Your task to perform on an android device: Turn on the flashlight Image 0: 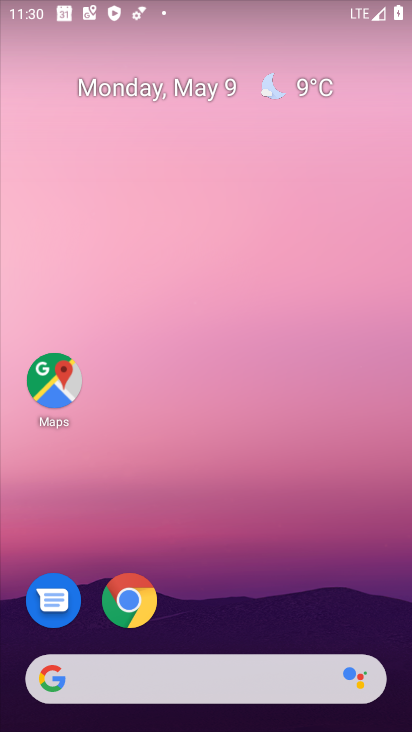
Step 0: drag from (342, 533) to (333, 171)
Your task to perform on an android device: Turn on the flashlight Image 1: 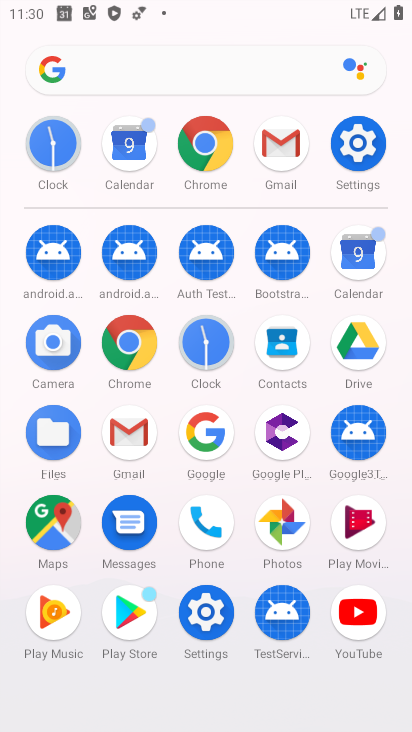
Step 1: click (374, 169)
Your task to perform on an android device: Turn on the flashlight Image 2: 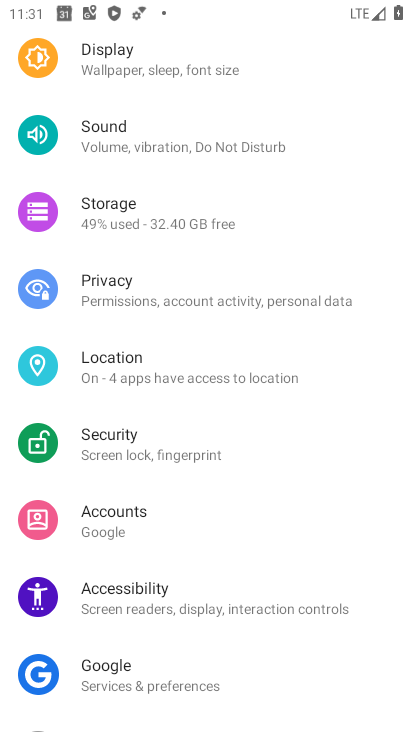
Step 2: drag from (311, 137) to (351, 400)
Your task to perform on an android device: Turn on the flashlight Image 3: 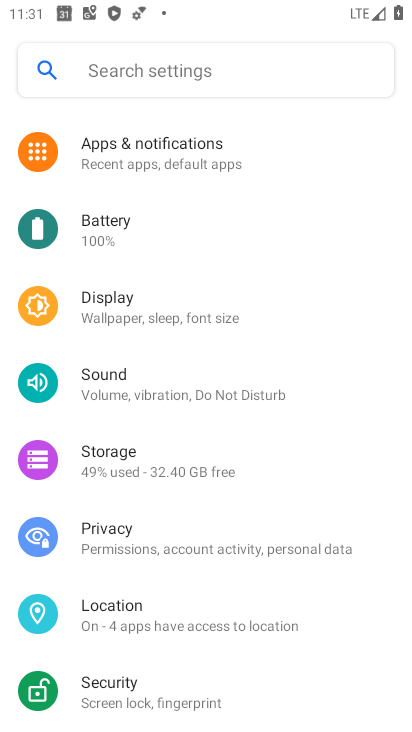
Step 3: click (225, 80)
Your task to perform on an android device: Turn on the flashlight Image 4: 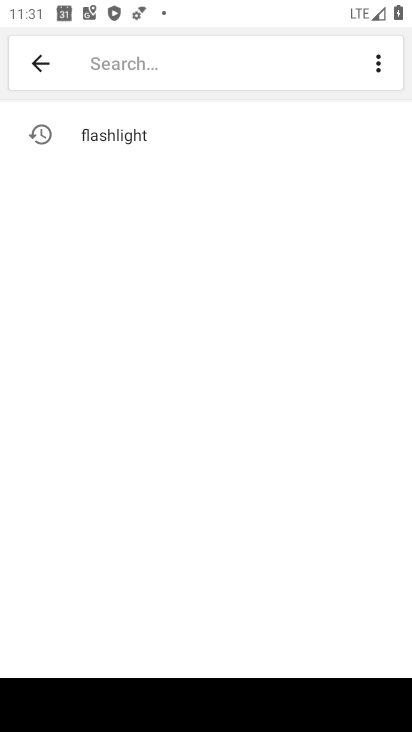
Step 4: click (110, 134)
Your task to perform on an android device: Turn on the flashlight Image 5: 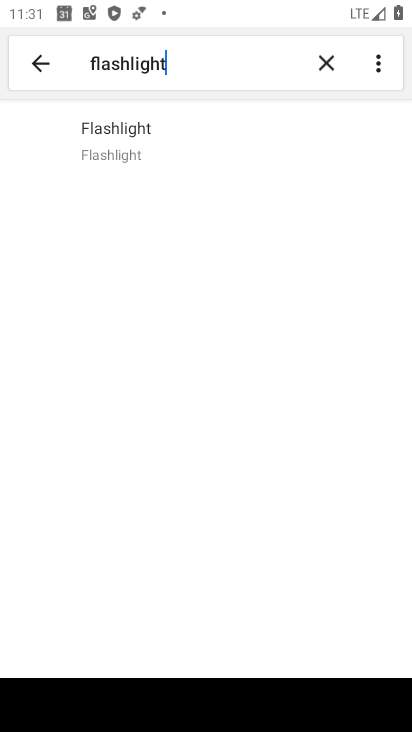
Step 5: click (123, 141)
Your task to perform on an android device: Turn on the flashlight Image 6: 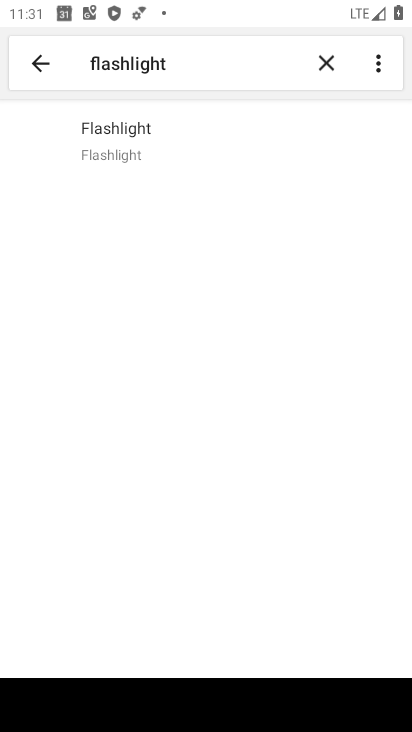
Step 6: task complete